Your task to perform on an android device: Go to display settings Image 0: 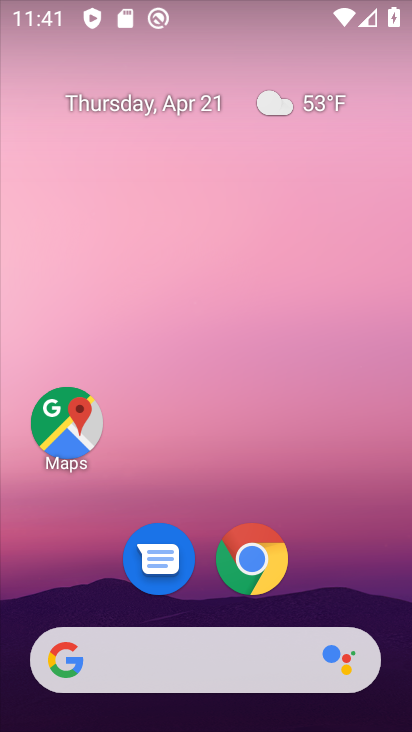
Step 0: drag from (387, 611) to (366, 25)
Your task to perform on an android device: Go to display settings Image 1: 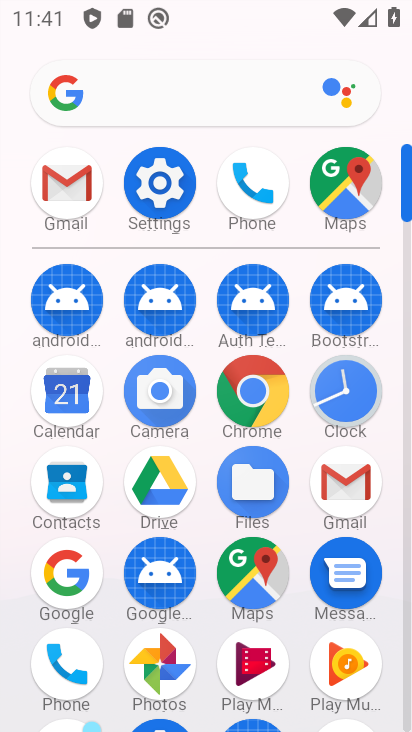
Step 1: click (164, 179)
Your task to perform on an android device: Go to display settings Image 2: 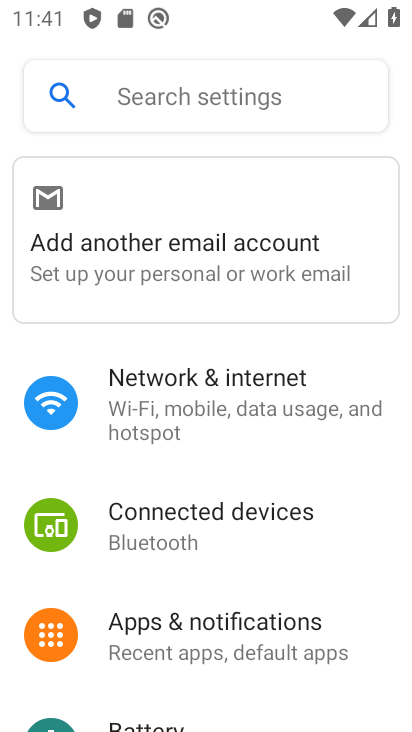
Step 2: drag from (359, 631) to (335, 179)
Your task to perform on an android device: Go to display settings Image 3: 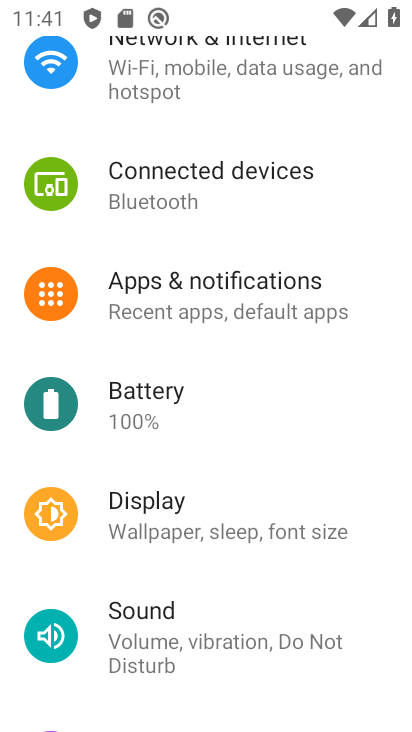
Step 3: click (130, 517)
Your task to perform on an android device: Go to display settings Image 4: 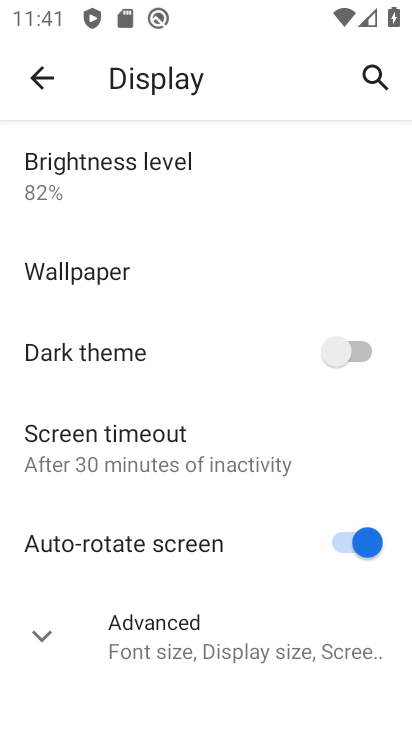
Step 4: task complete